Your task to perform on an android device: Open Google Chrome Image 0: 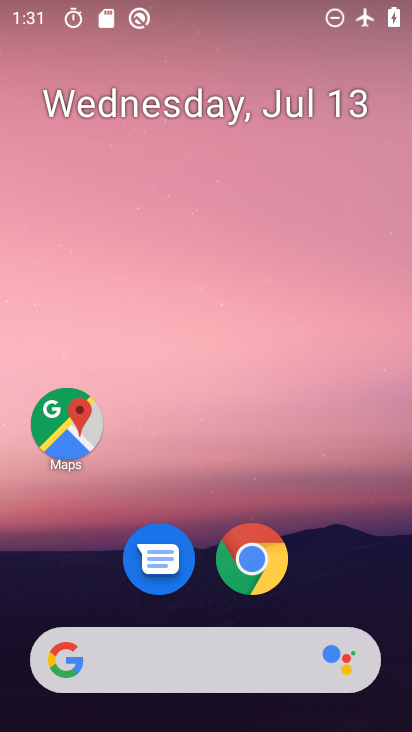
Step 0: drag from (210, 658) to (249, 221)
Your task to perform on an android device: Open Google Chrome Image 1: 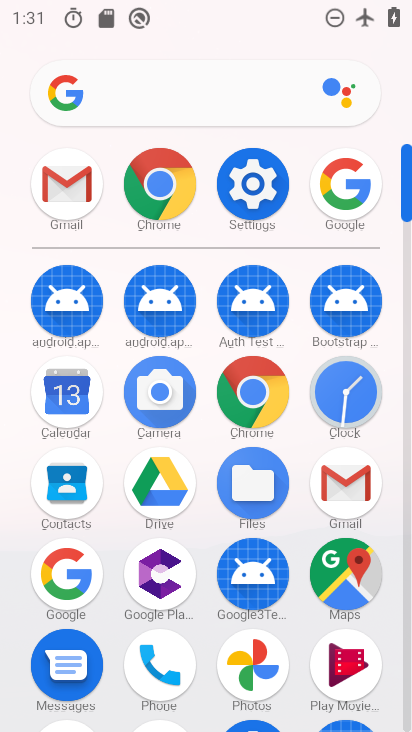
Step 1: click (161, 196)
Your task to perform on an android device: Open Google Chrome Image 2: 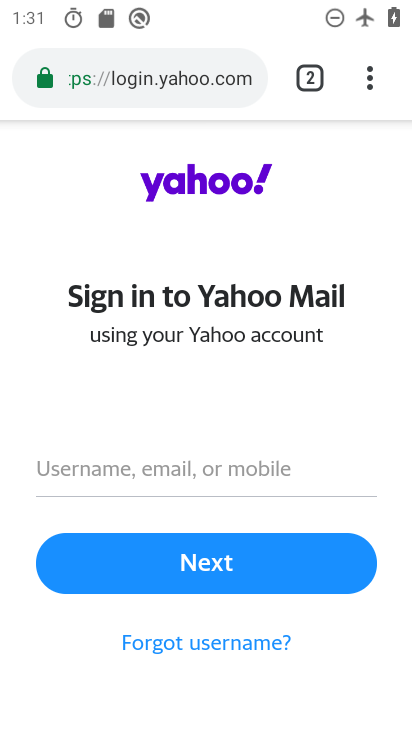
Step 2: task complete